Your task to perform on an android device: Go to network settings Image 0: 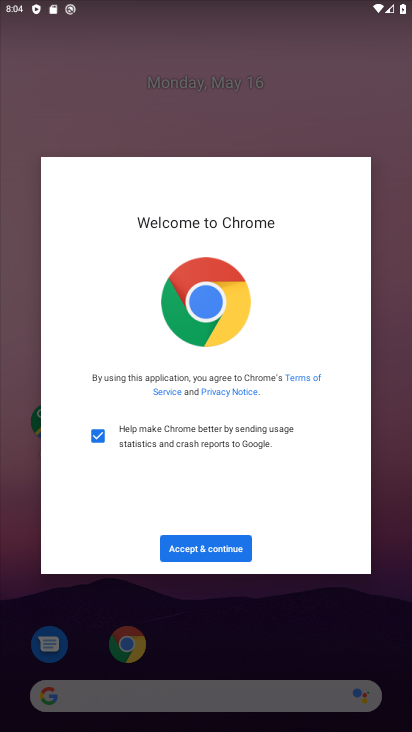
Step 0: click (213, 547)
Your task to perform on an android device: Go to network settings Image 1: 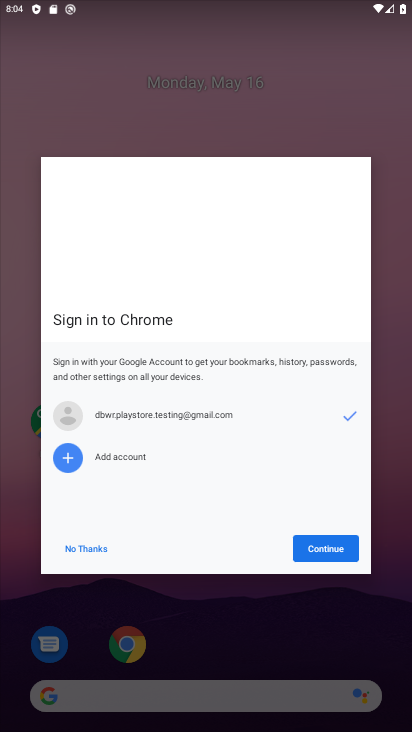
Step 1: click (86, 549)
Your task to perform on an android device: Go to network settings Image 2: 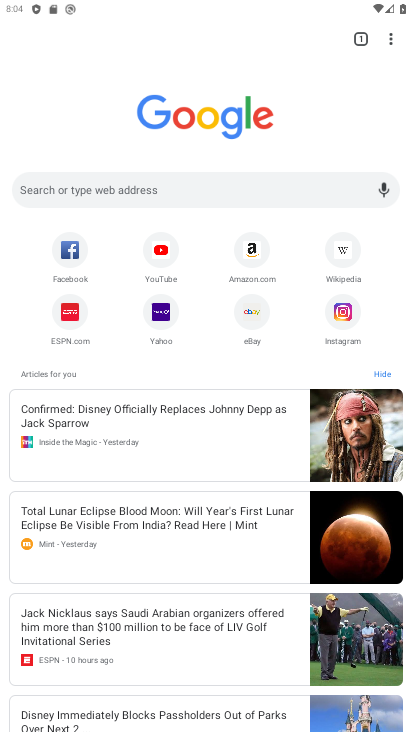
Step 2: press home button
Your task to perform on an android device: Go to network settings Image 3: 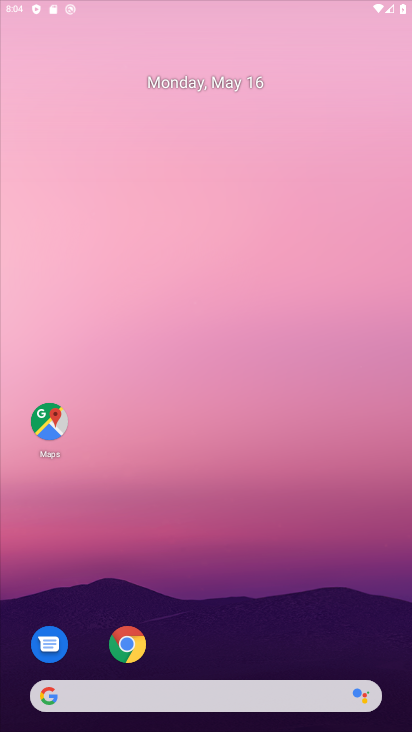
Step 3: drag from (173, 563) to (96, 22)
Your task to perform on an android device: Go to network settings Image 4: 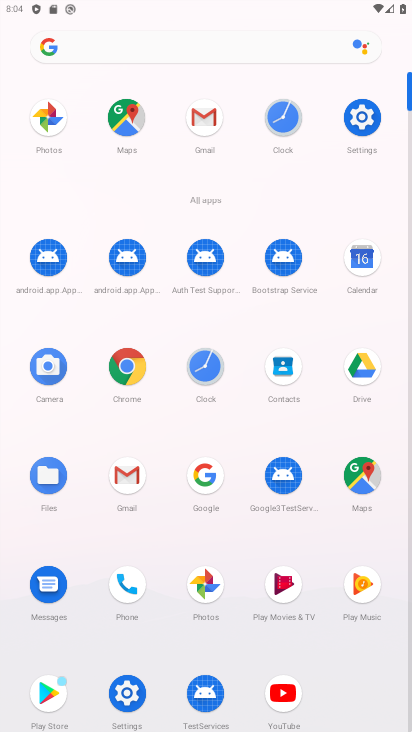
Step 4: click (358, 119)
Your task to perform on an android device: Go to network settings Image 5: 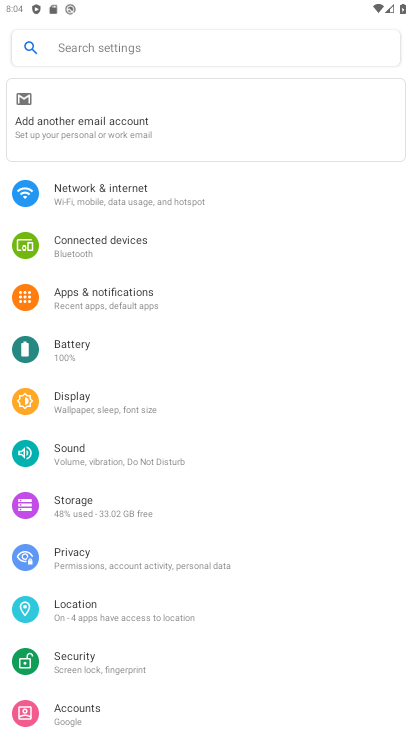
Step 5: click (141, 191)
Your task to perform on an android device: Go to network settings Image 6: 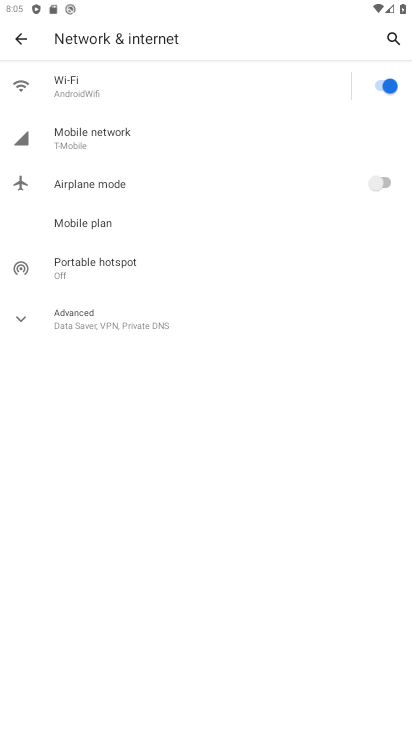
Step 6: task complete